Your task to perform on an android device: turn pop-ups off in chrome Image 0: 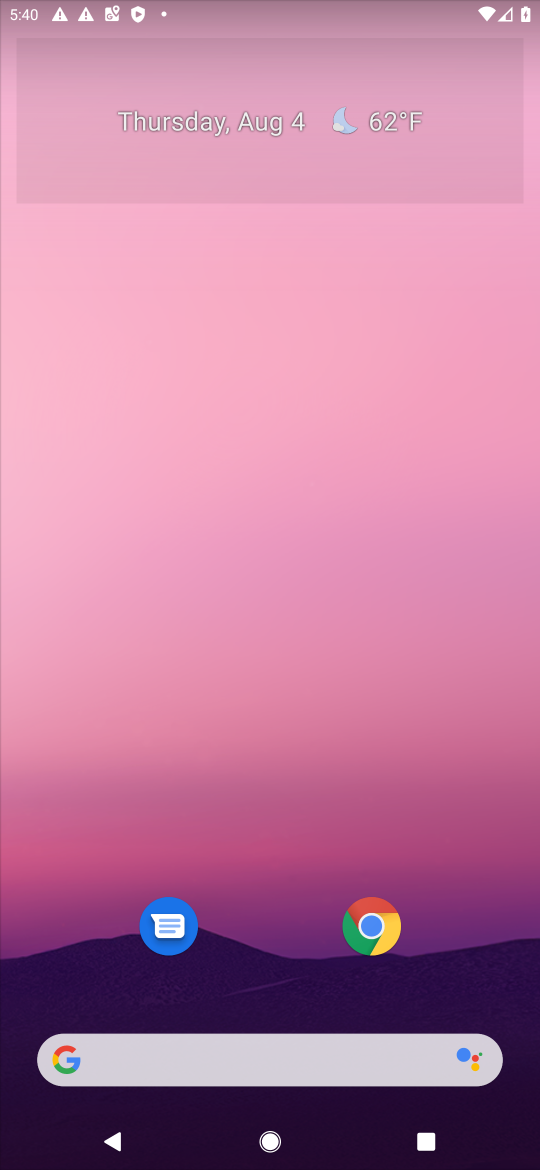
Step 0: press home button
Your task to perform on an android device: turn pop-ups off in chrome Image 1: 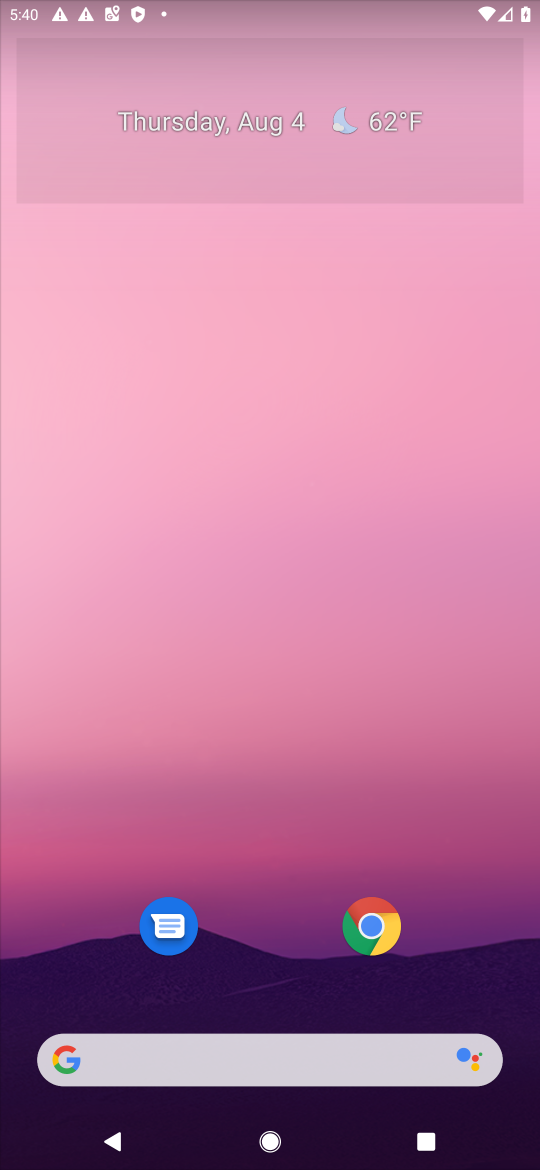
Step 1: drag from (295, 1003) to (245, 231)
Your task to perform on an android device: turn pop-ups off in chrome Image 2: 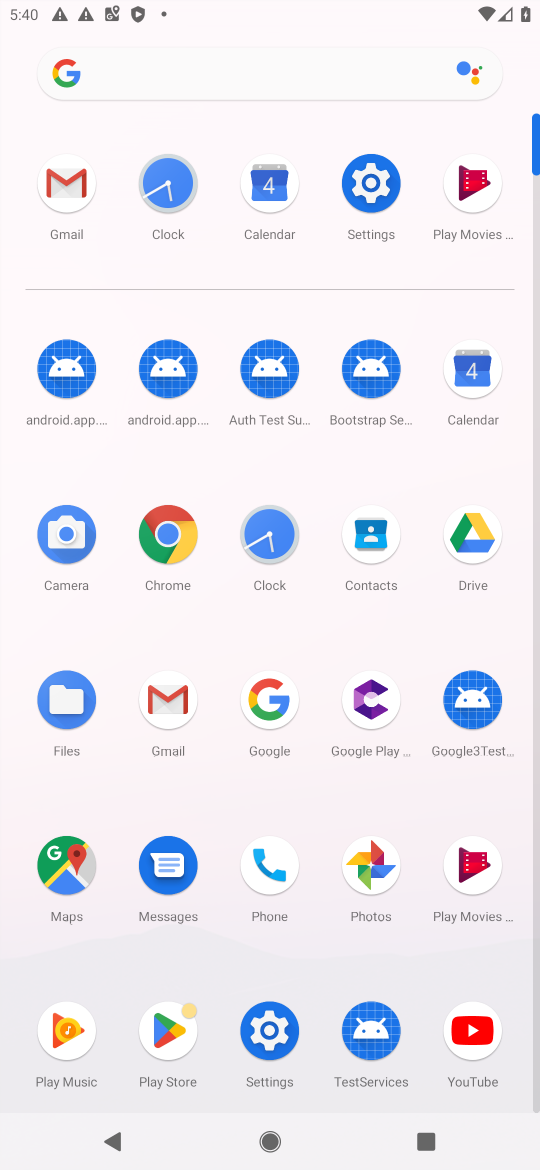
Step 2: click (162, 536)
Your task to perform on an android device: turn pop-ups off in chrome Image 3: 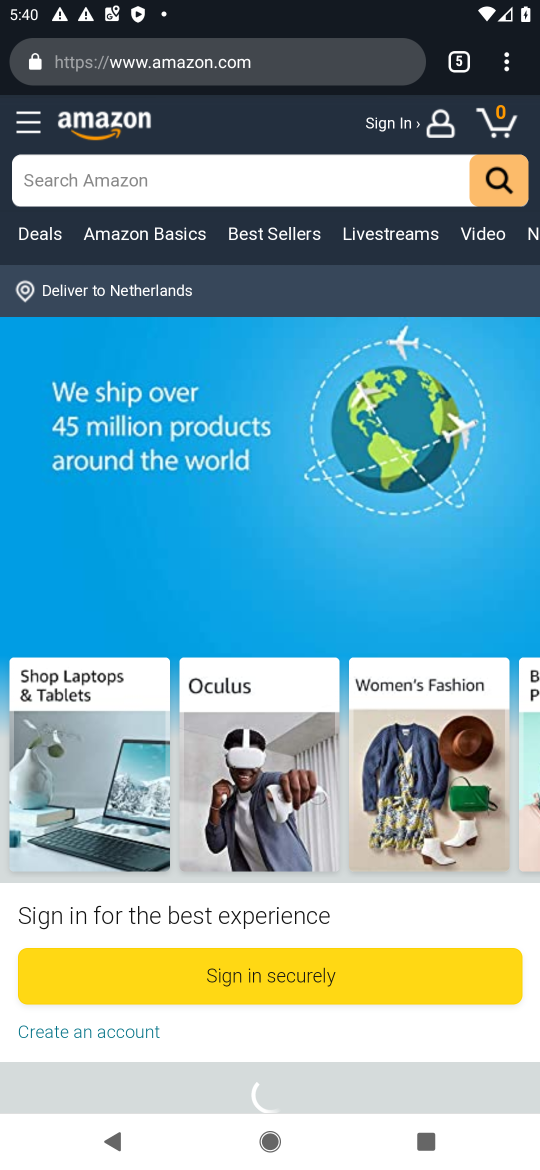
Step 3: drag from (494, 78) to (319, 807)
Your task to perform on an android device: turn pop-ups off in chrome Image 4: 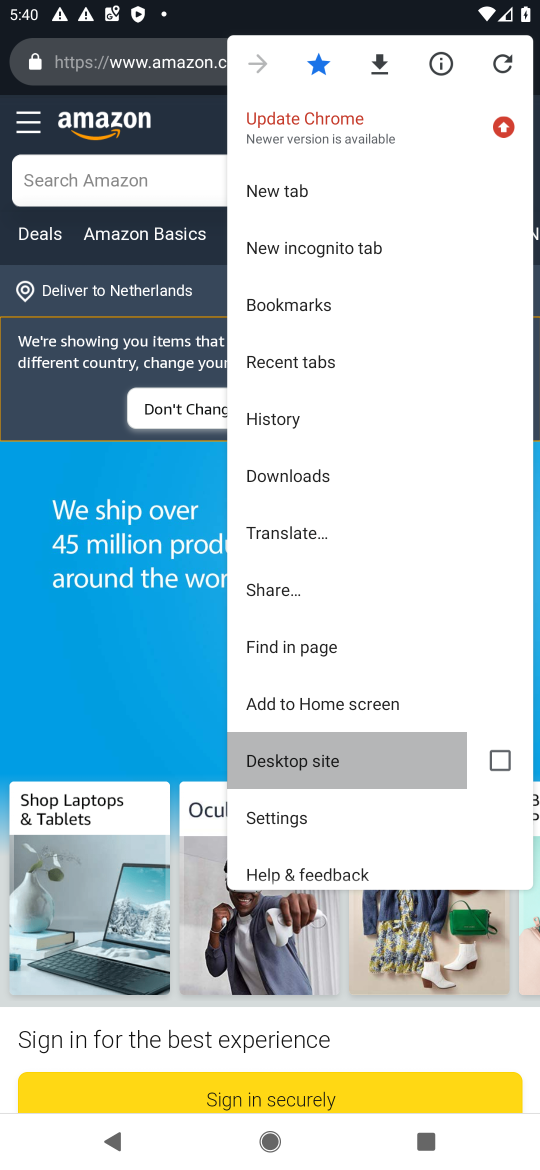
Step 4: click (278, 814)
Your task to perform on an android device: turn pop-ups off in chrome Image 5: 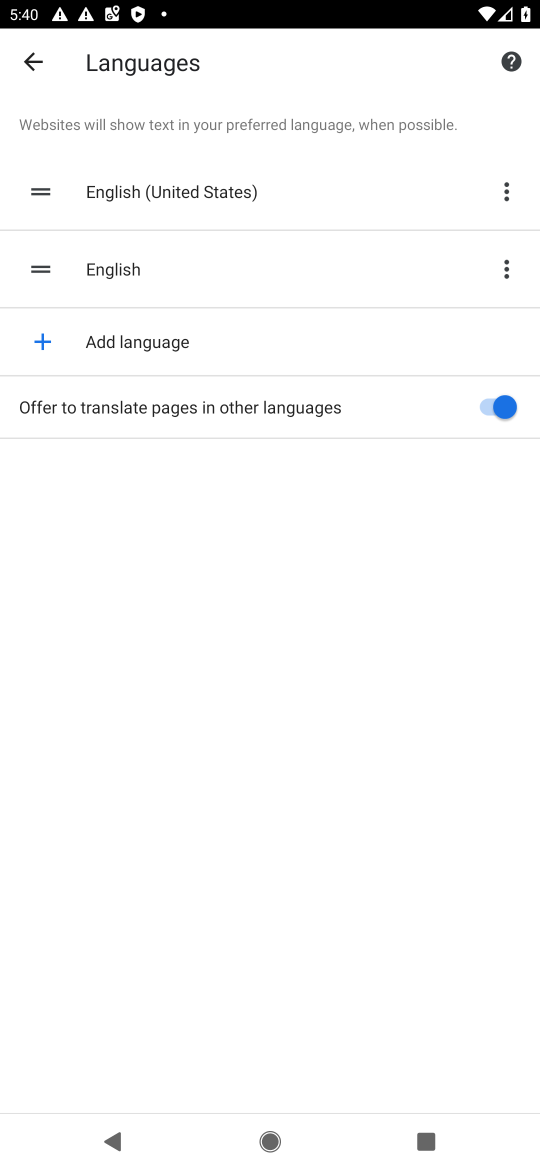
Step 5: click (23, 65)
Your task to perform on an android device: turn pop-ups off in chrome Image 6: 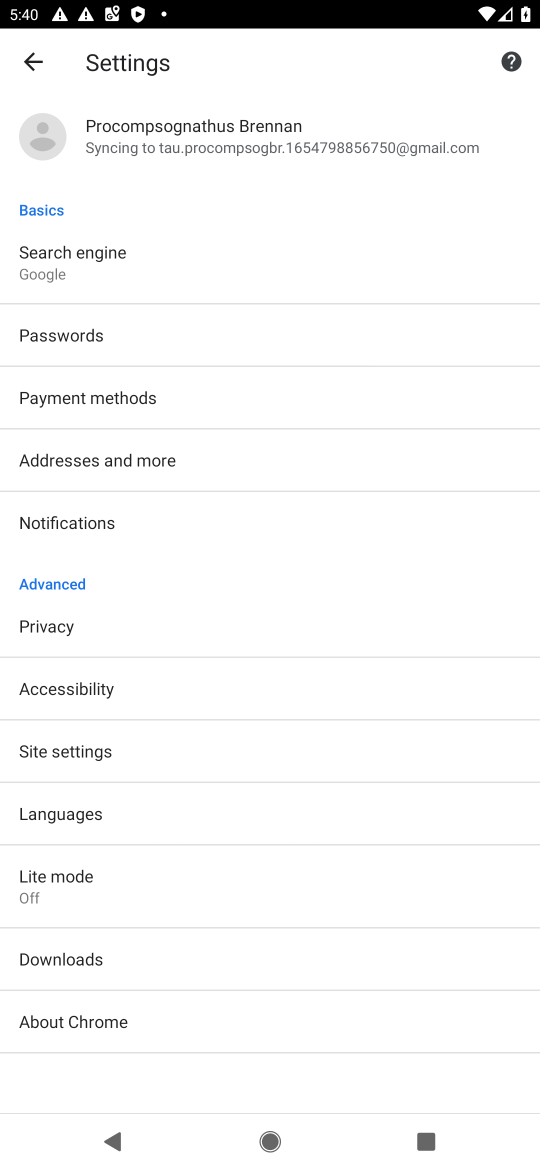
Step 6: click (72, 748)
Your task to perform on an android device: turn pop-ups off in chrome Image 7: 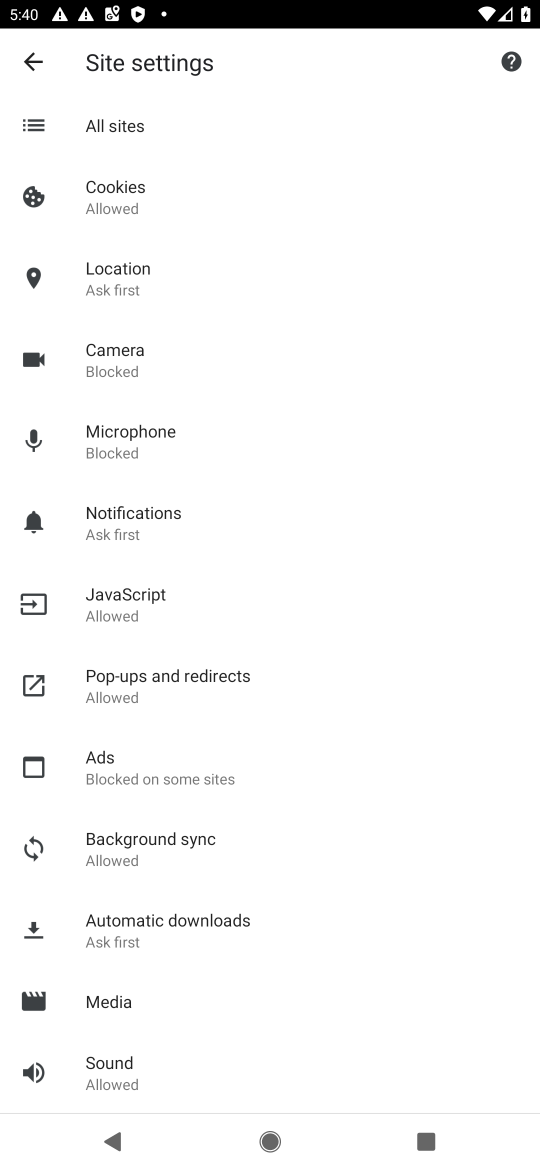
Step 7: click (162, 680)
Your task to perform on an android device: turn pop-ups off in chrome Image 8: 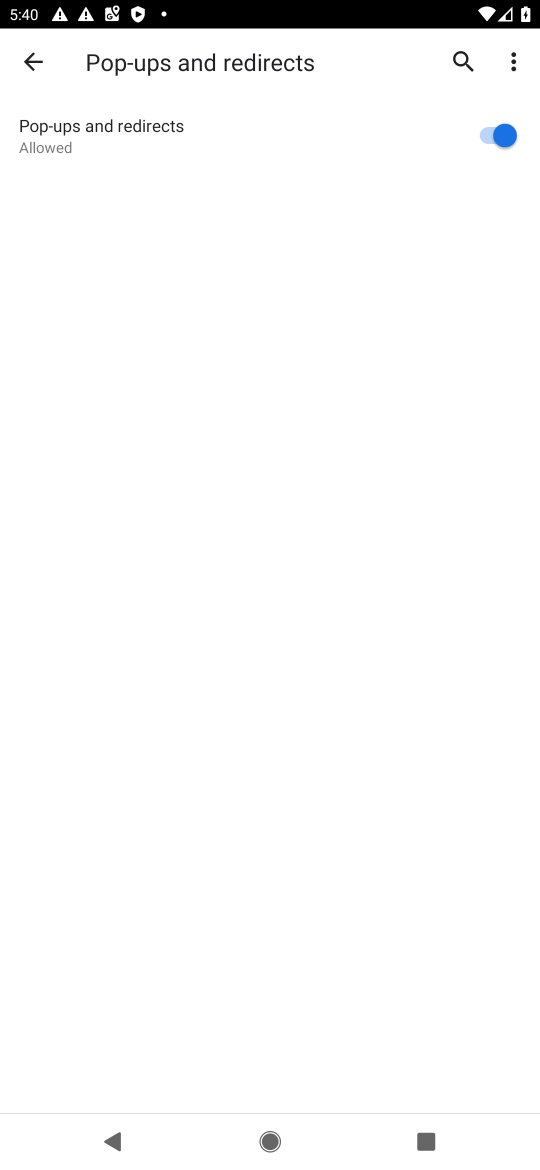
Step 8: click (500, 138)
Your task to perform on an android device: turn pop-ups off in chrome Image 9: 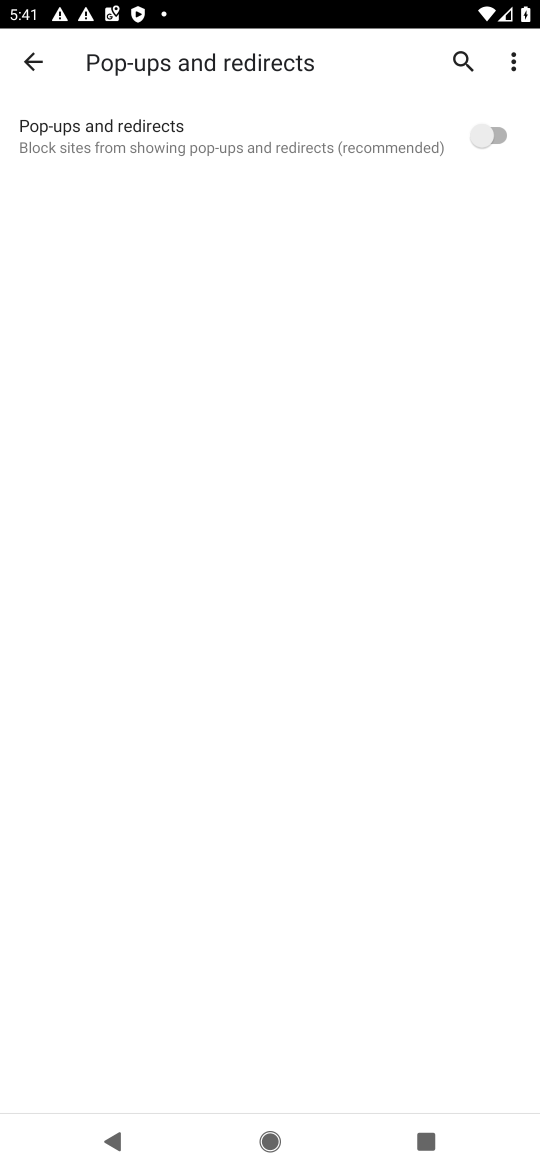
Step 9: task complete